Your task to perform on an android device: turn on javascript in the chrome app Image 0: 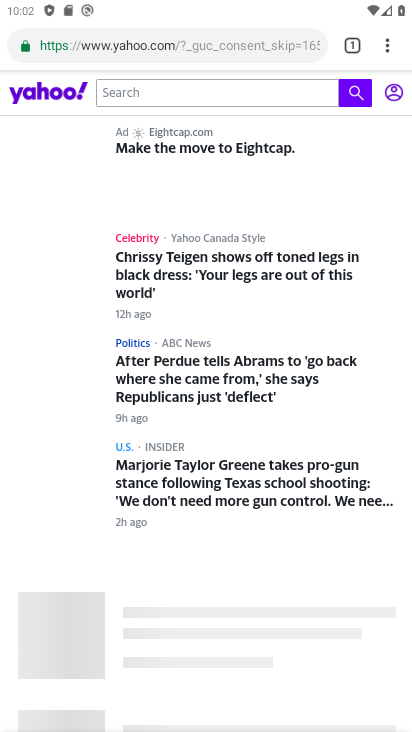
Step 0: click (388, 40)
Your task to perform on an android device: turn on javascript in the chrome app Image 1: 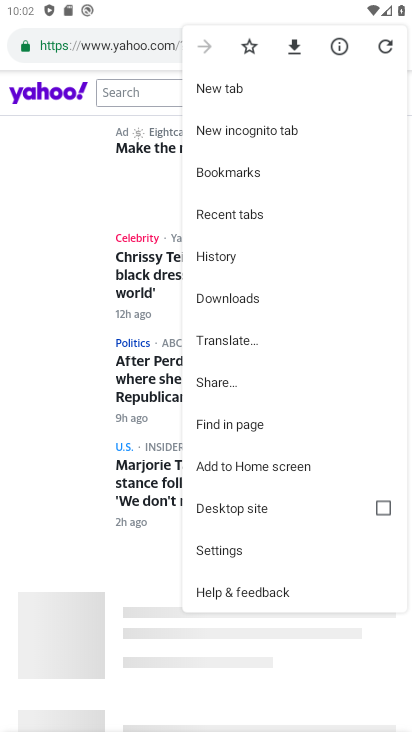
Step 1: click (255, 541)
Your task to perform on an android device: turn on javascript in the chrome app Image 2: 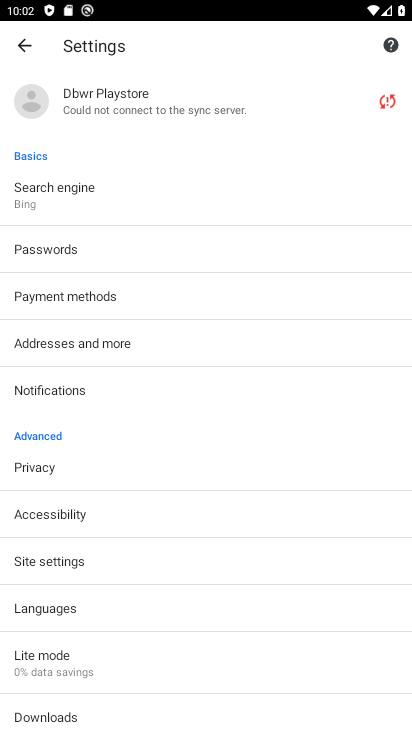
Step 2: click (93, 560)
Your task to perform on an android device: turn on javascript in the chrome app Image 3: 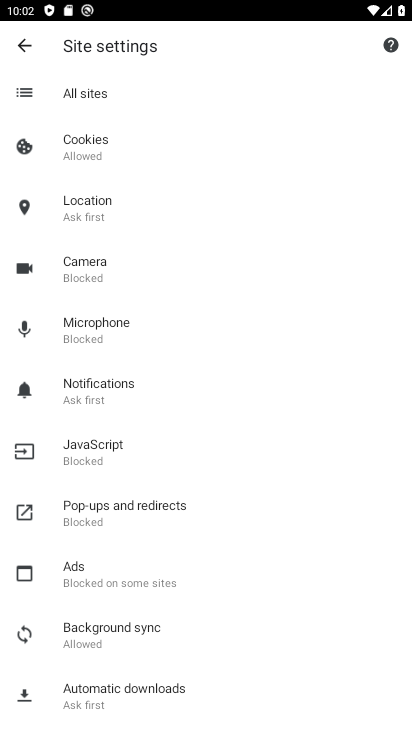
Step 3: click (115, 453)
Your task to perform on an android device: turn on javascript in the chrome app Image 4: 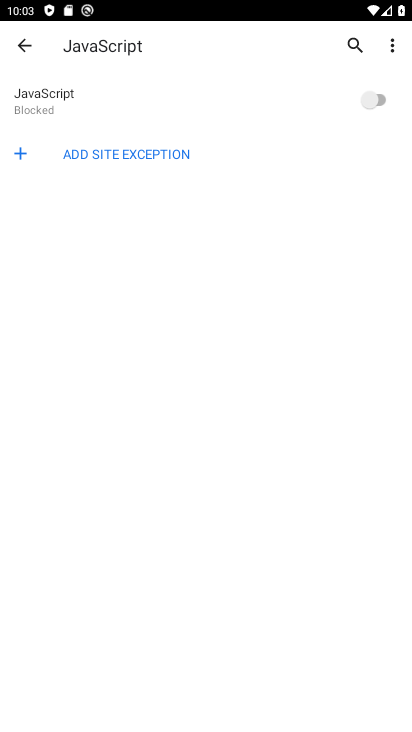
Step 4: click (375, 97)
Your task to perform on an android device: turn on javascript in the chrome app Image 5: 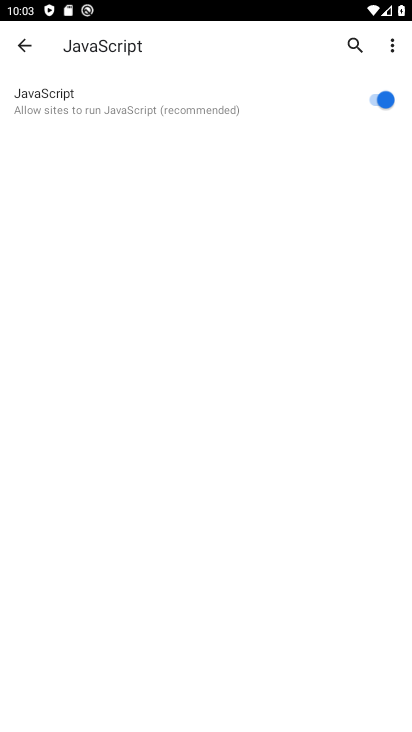
Step 5: task complete